Your task to perform on an android device: Go to network settings Image 0: 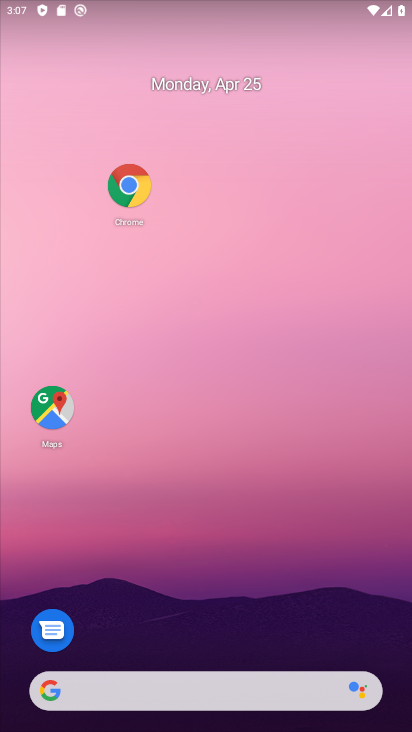
Step 0: drag from (140, 661) to (223, 291)
Your task to perform on an android device: Go to network settings Image 1: 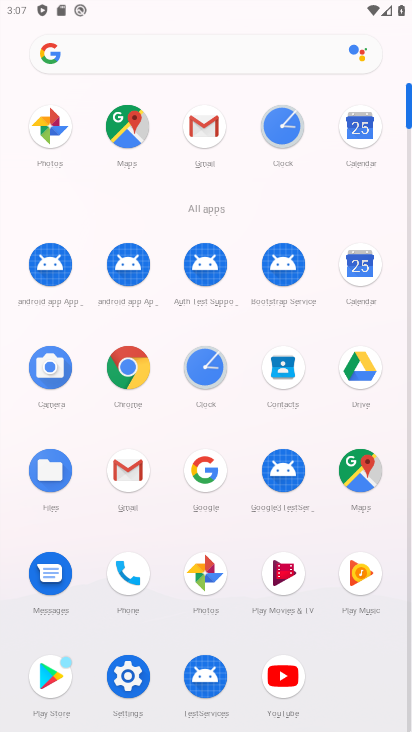
Step 1: click (137, 680)
Your task to perform on an android device: Go to network settings Image 2: 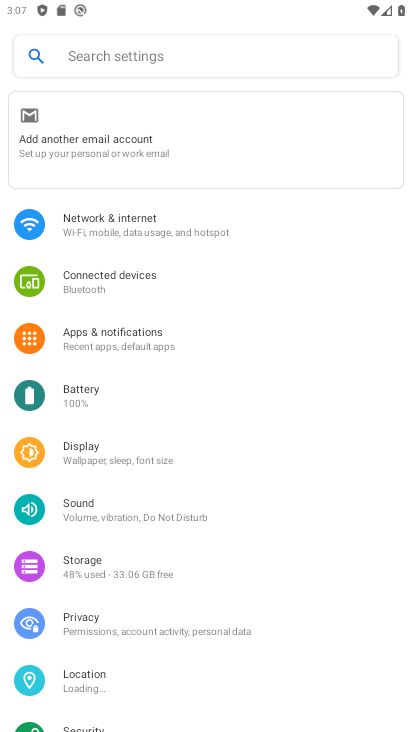
Step 2: click (125, 229)
Your task to perform on an android device: Go to network settings Image 3: 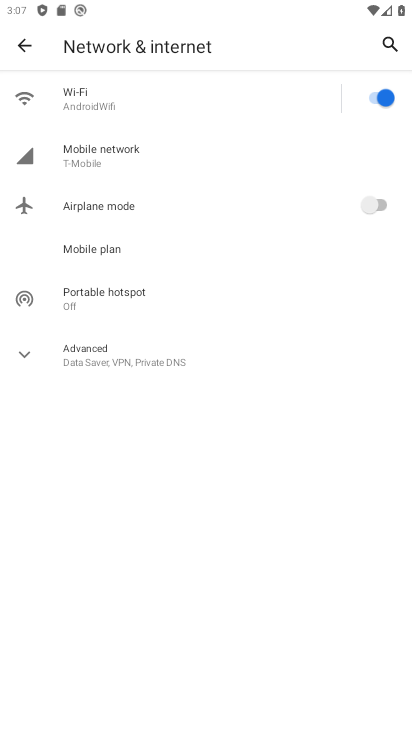
Step 3: task complete